Your task to perform on an android device: change timer sound Image 0: 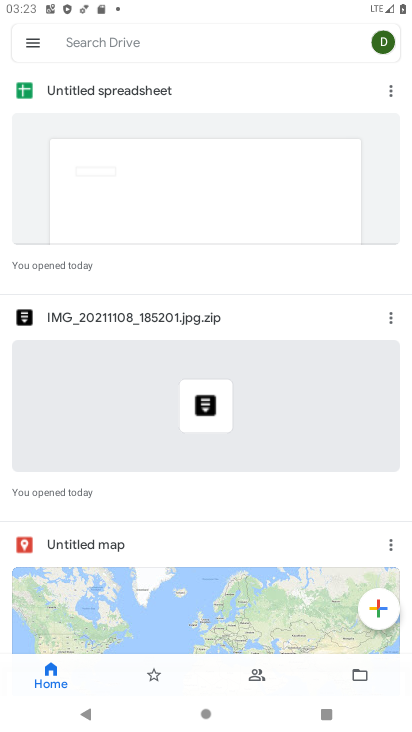
Step 0: press home button
Your task to perform on an android device: change timer sound Image 1: 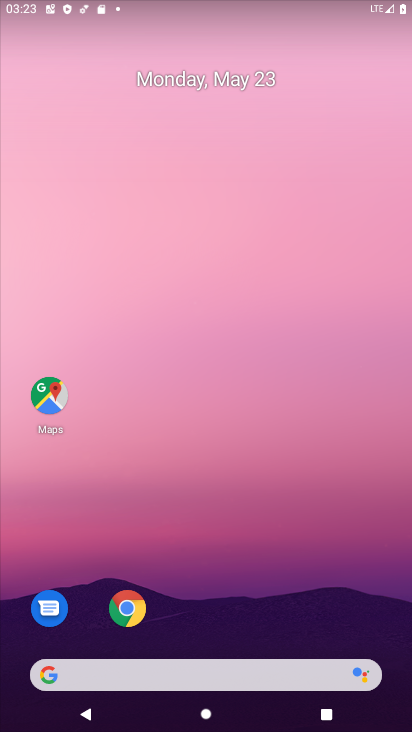
Step 1: drag from (248, 606) to (276, 142)
Your task to perform on an android device: change timer sound Image 2: 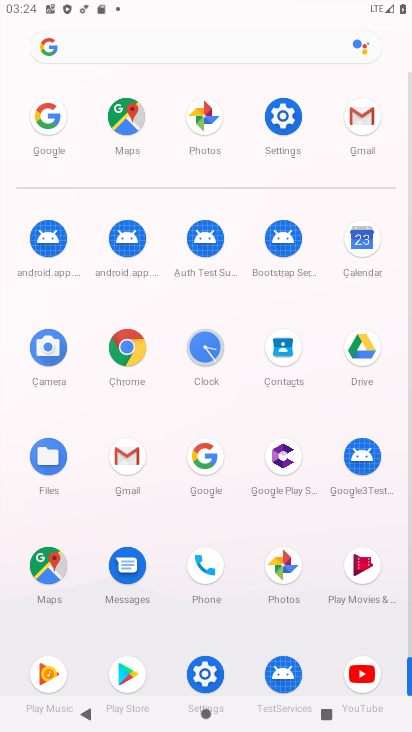
Step 2: click (205, 348)
Your task to perform on an android device: change timer sound Image 3: 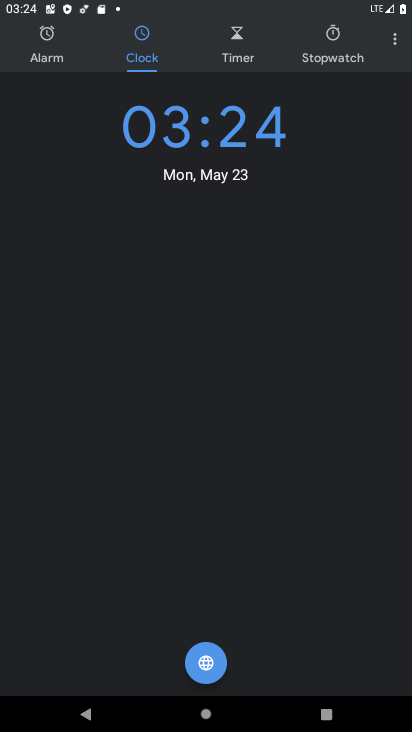
Step 3: click (398, 39)
Your task to perform on an android device: change timer sound Image 4: 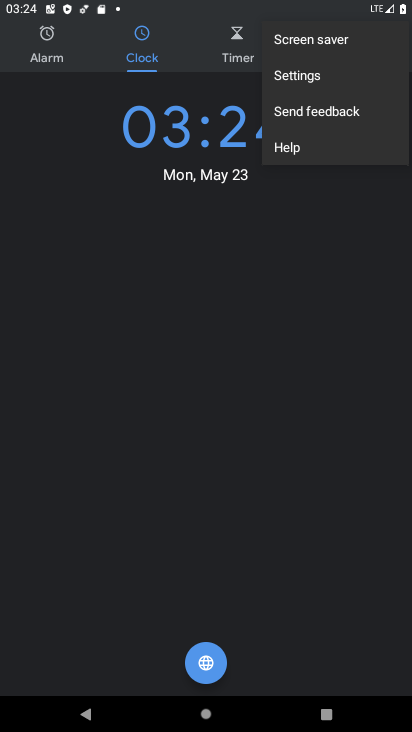
Step 4: click (309, 77)
Your task to perform on an android device: change timer sound Image 5: 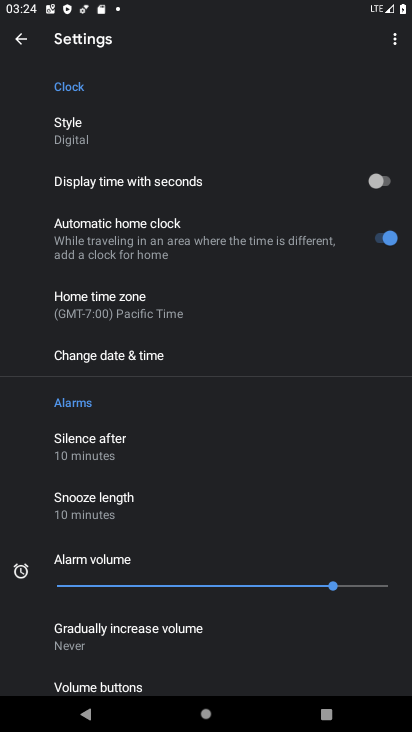
Step 5: drag from (193, 536) to (221, 457)
Your task to perform on an android device: change timer sound Image 6: 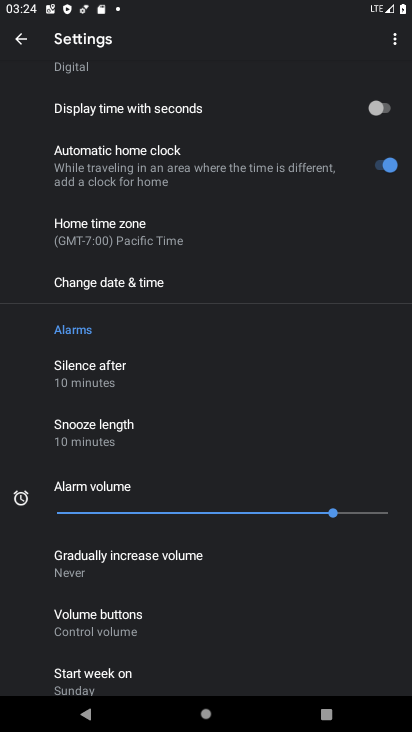
Step 6: drag from (206, 580) to (230, 500)
Your task to perform on an android device: change timer sound Image 7: 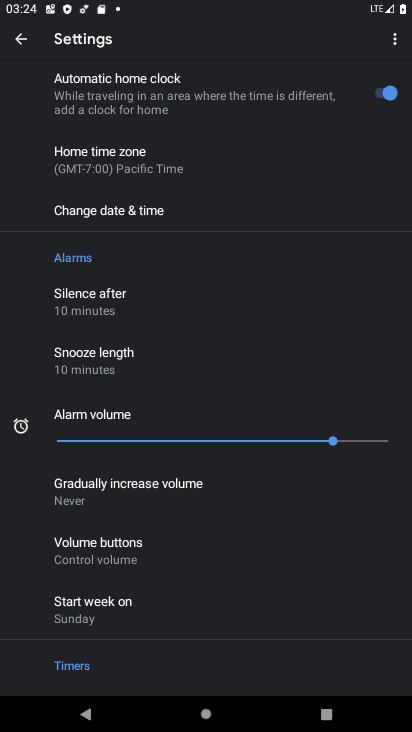
Step 7: drag from (181, 594) to (240, 493)
Your task to perform on an android device: change timer sound Image 8: 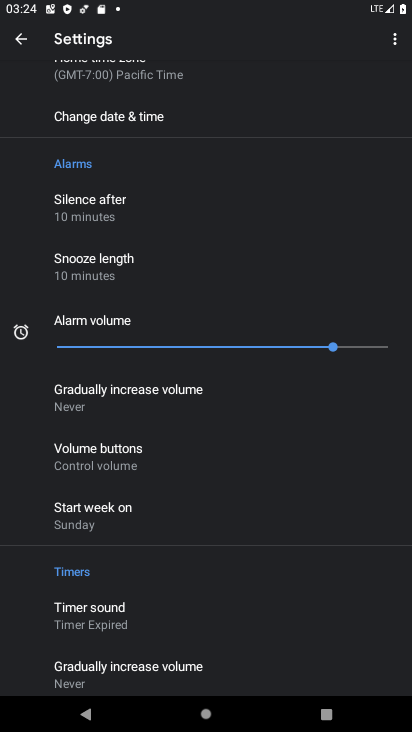
Step 8: drag from (164, 589) to (216, 508)
Your task to perform on an android device: change timer sound Image 9: 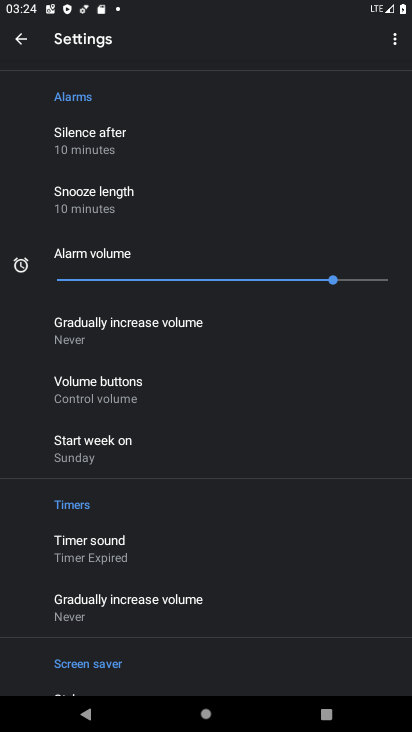
Step 9: click (106, 542)
Your task to perform on an android device: change timer sound Image 10: 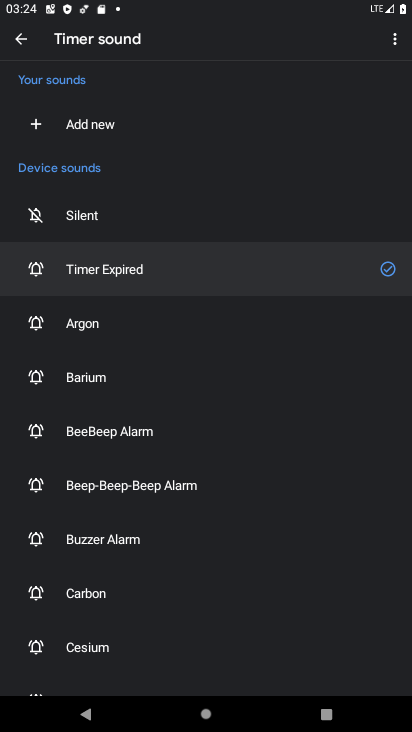
Step 10: drag from (133, 509) to (174, 407)
Your task to perform on an android device: change timer sound Image 11: 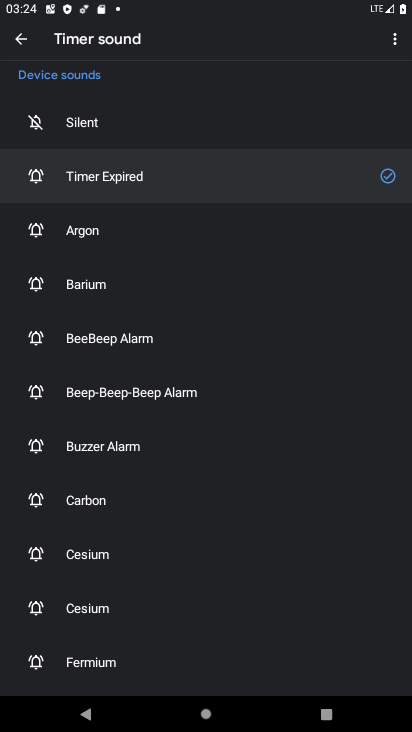
Step 11: drag from (131, 523) to (152, 426)
Your task to perform on an android device: change timer sound Image 12: 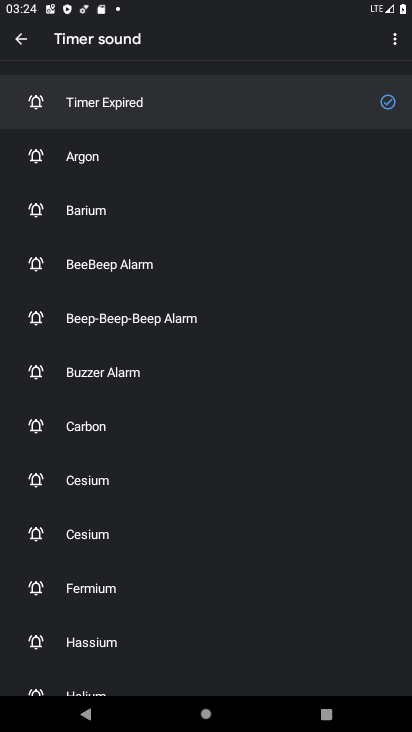
Step 12: drag from (121, 513) to (153, 419)
Your task to perform on an android device: change timer sound Image 13: 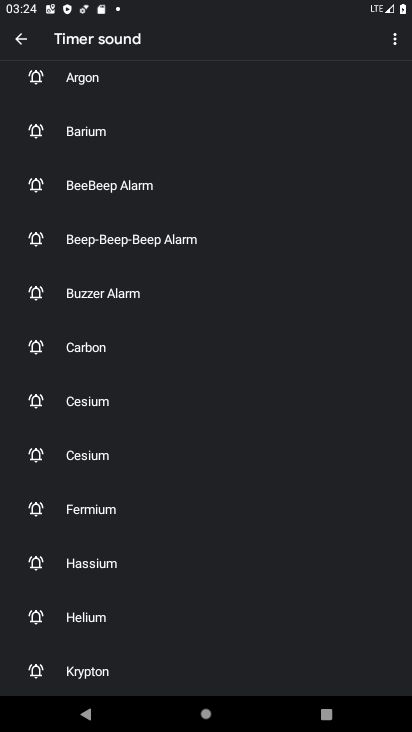
Step 13: click (110, 461)
Your task to perform on an android device: change timer sound Image 14: 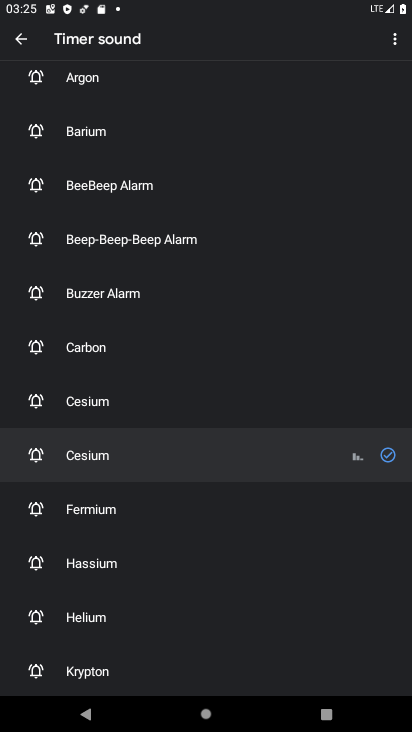
Step 14: task complete